Your task to perform on an android device: Open Maps and search for coffee Image 0: 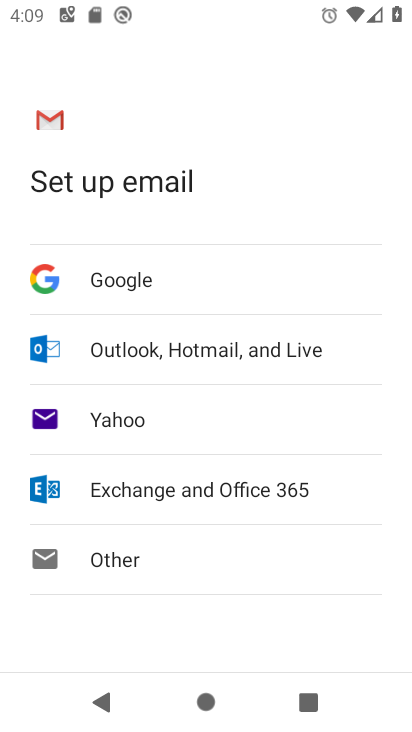
Step 0: press home button
Your task to perform on an android device: Open Maps and search for coffee Image 1: 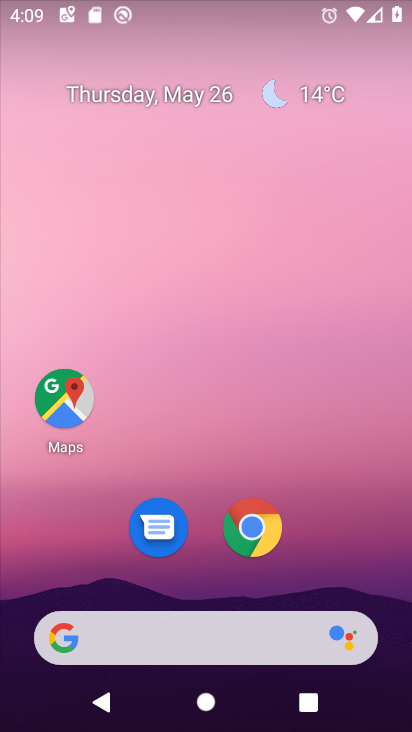
Step 1: click (65, 407)
Your task to perform on an android device: Open Maps and search for coffee Image 2: 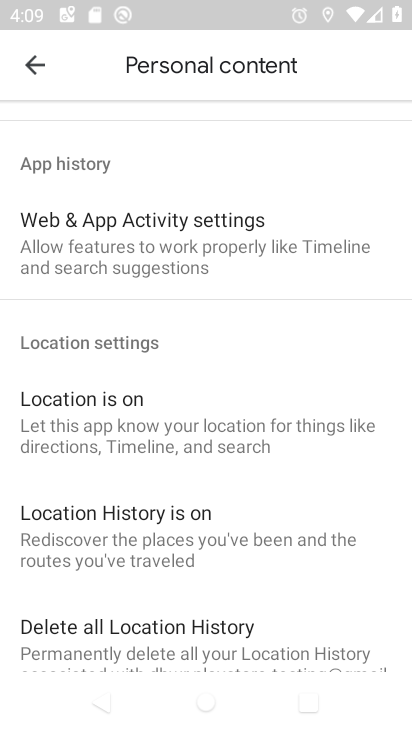
Step 2: click (37, 76)
Your task to perform on an android device: Open Maps and search for coffee Image 3: 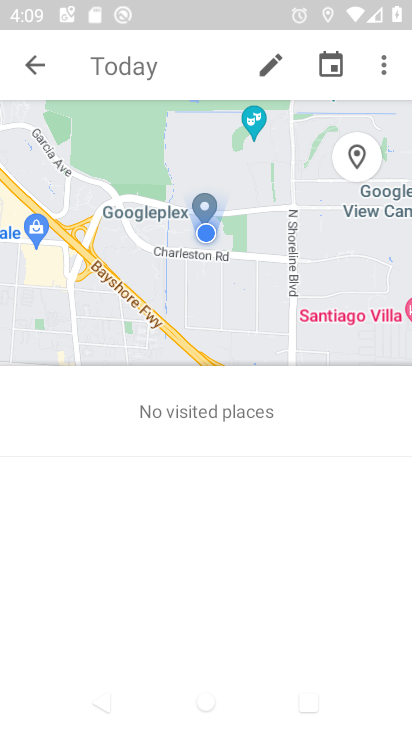
Step 3: click (390, 65)
Your task to perform on an android device: Open Maps and search for coffee Image 4: 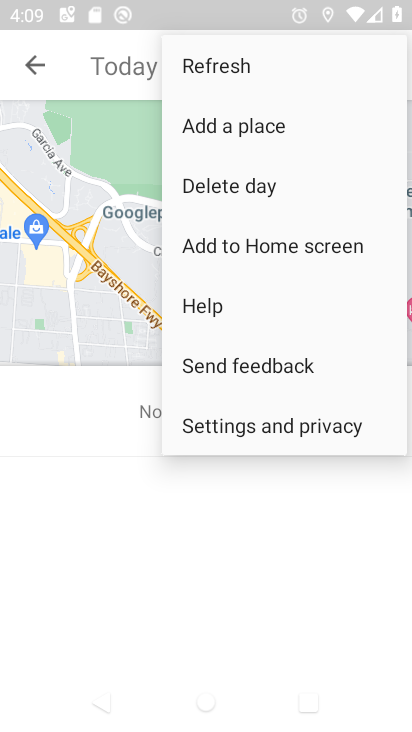
Step 4: click (42, 62)
Your task to perform on an android device: Open Maps and search for coffee Image 5: 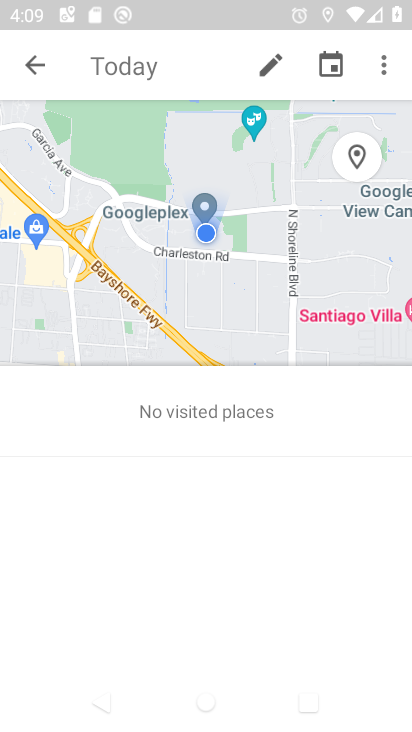
Step 5: click (42, 62)
Your task to perform on an android device: Open Maps and search for coffee Image 6: 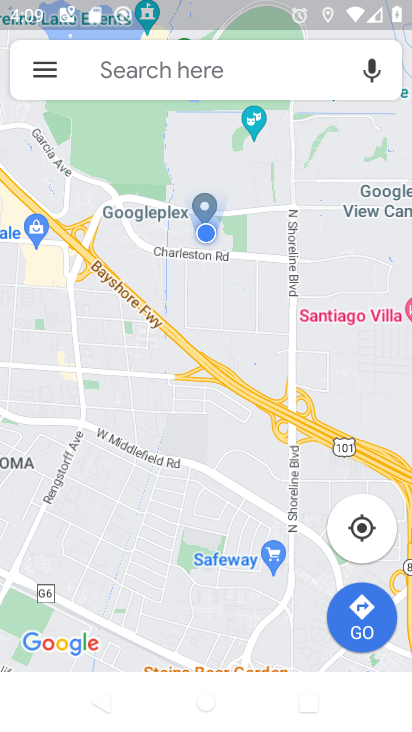
Step 6: click (103, 69)
Your task to perform on an android device: Open Maps and search for coffee Image 7: 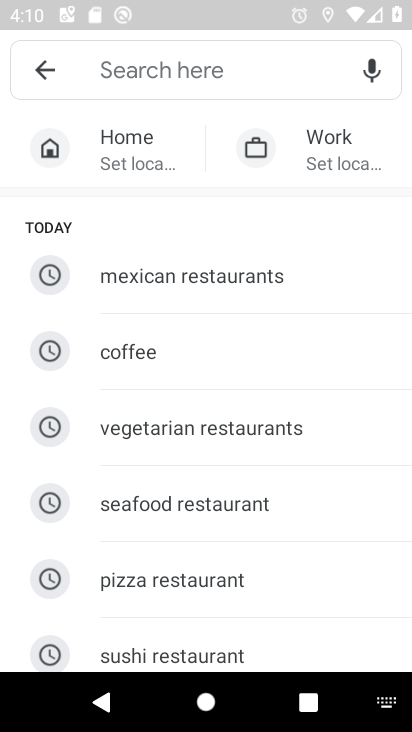
Step 7: click (136, 340)
Your task to perform on an android device: Open Maps and search for coffee Image 8: 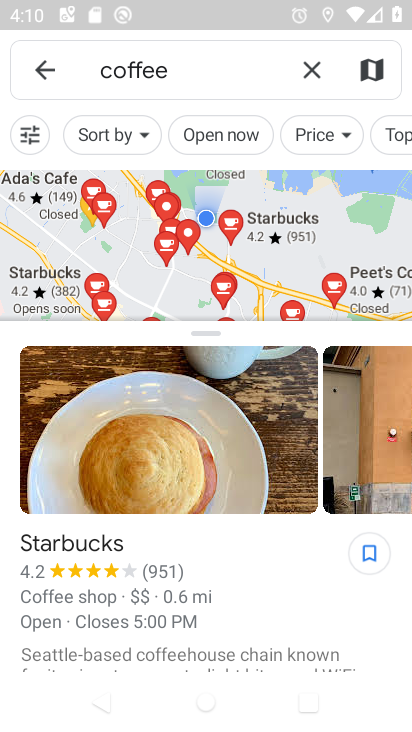
Step 8: task complete